Your task to perform on an android device: change alarm snooze length Image 0: 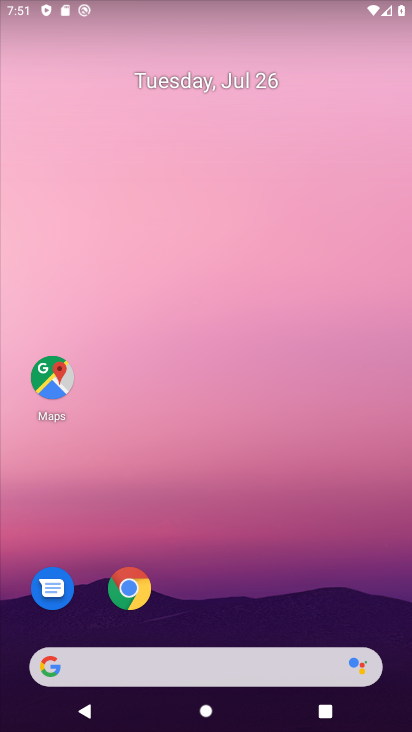
Step 0: click (304, 446)
Your task to perform on an android device: change alarm snooze length Image 1: 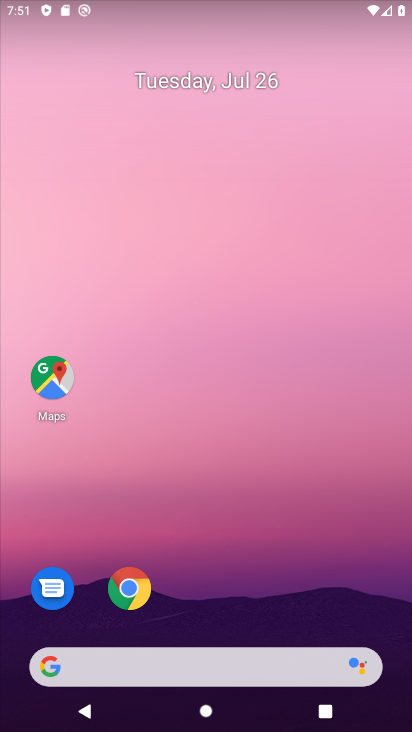
Step 1: drag from (315, 544) to (319, 26)
Your task to perform on an android device: change alarm snooze length Image 2: 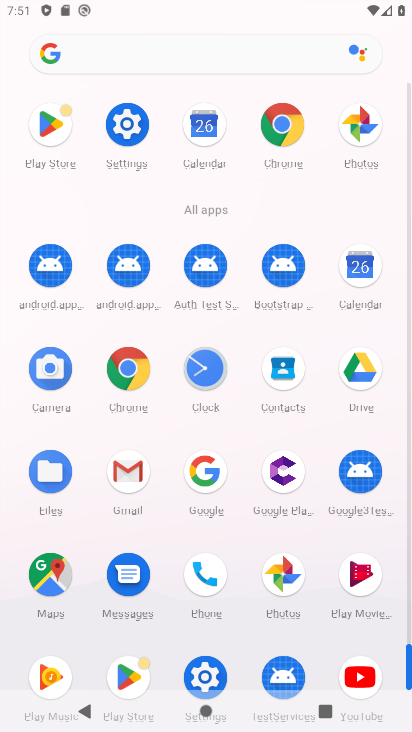
Step 2: click (221, 367)
Your task to perform on an android device: change alarm snooze length Image 3: 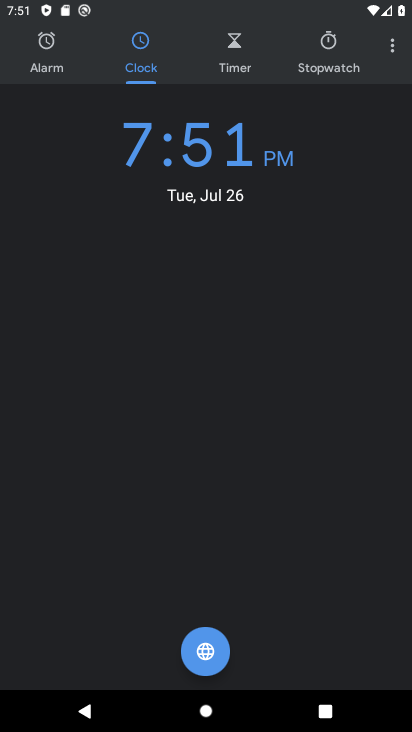
Step 3: click (398, 41)
Your task to perform on an android device: change alarm snooze length Image 4: 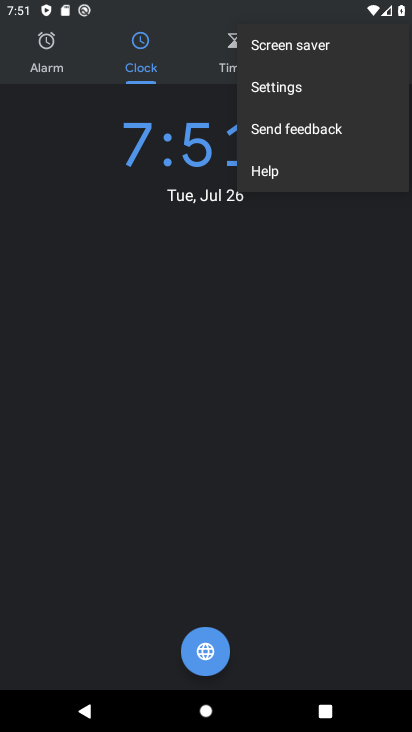
Step 4: click (304, 83)
Your task to perform on an android device: change alarm snooze length Image 5: 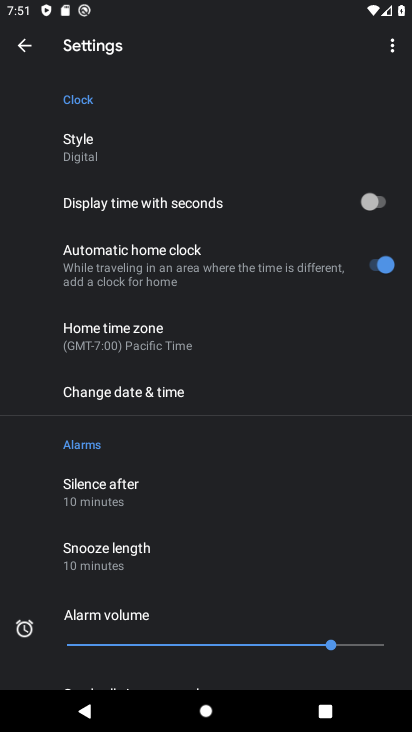
Step 5: click (100, 549)
Your task to perform on an android device: change alarm snooze length Image 6: 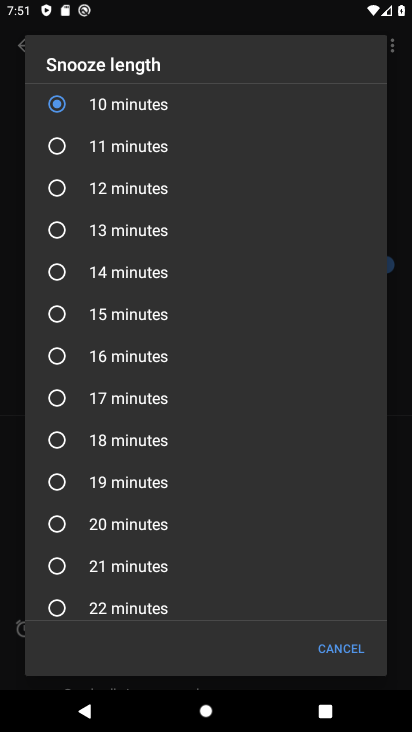
Step 6: click (158, 146)
Your task to perform on an android device: change alarm snooze length Image 7: 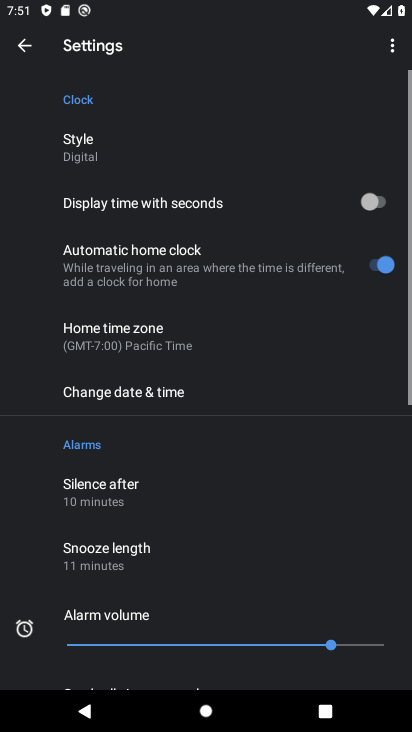
Step 7: task complete